Your task to perform on an android device: toggle improve location accuracy Image 0: 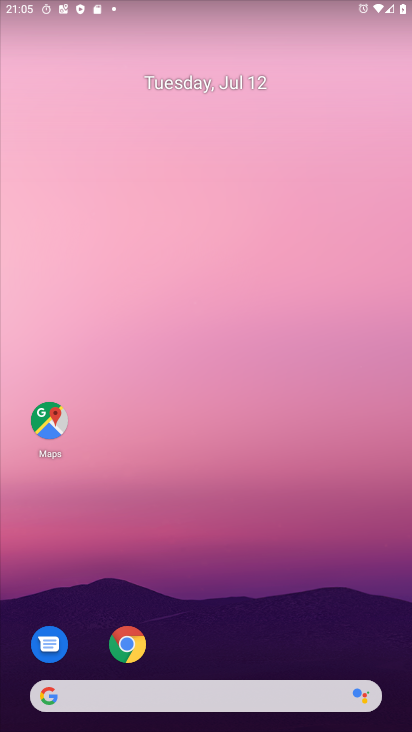
Step 0: drag from (167, 345) to (241, 165)
Your task to perform on an android device: toggle improve location accuracy Image 1: 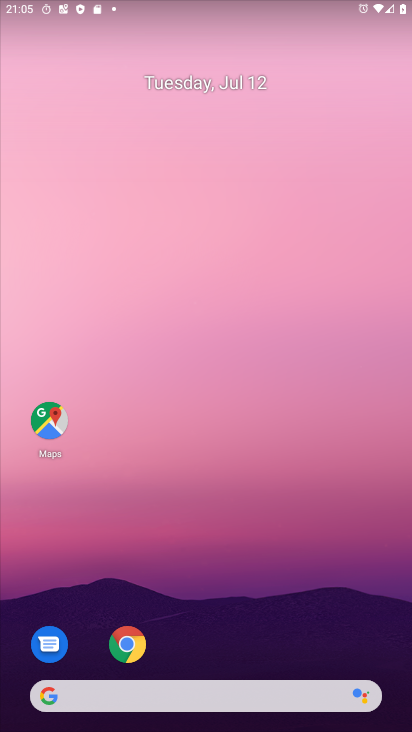
Step 1: drag from (5, 701) to (248, 186)
Your task to perform on an android device: toggle improve location accuracy Image 2: 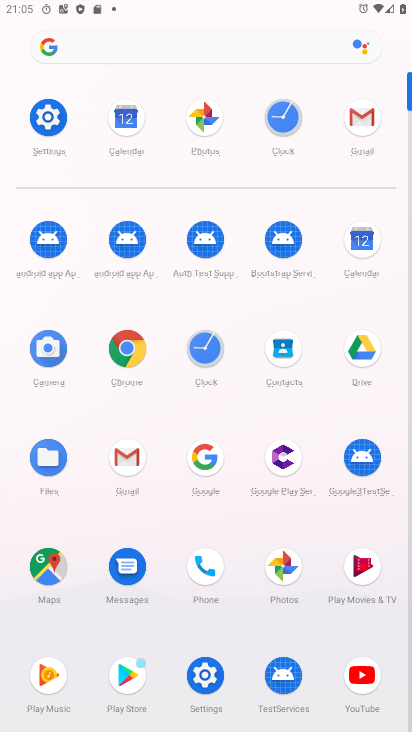
Step 2: click (212, 672)
Your task to perform on an android device: toggle improve location accuracy Image 3: 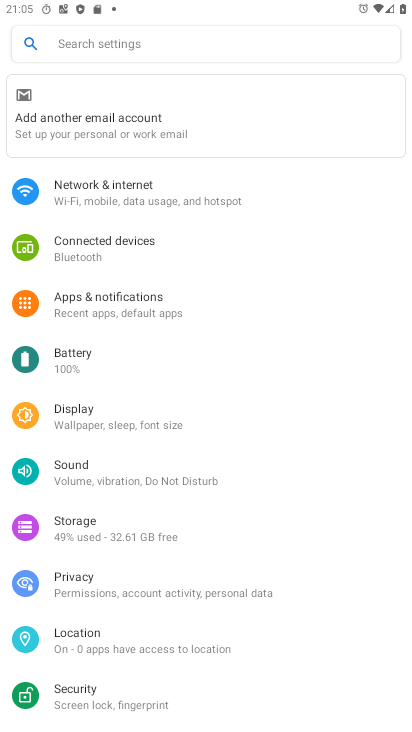
Step 3: click (77, 652)
Your task to perform on an android device: toggle improve location accuracy Image 4: 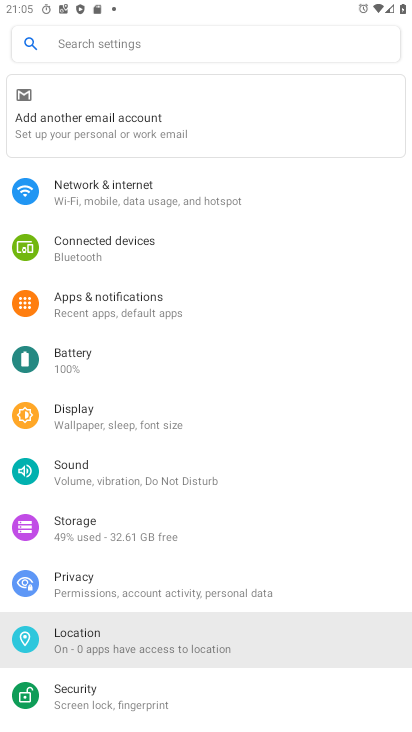
Step 4: click (83, 640)
Your task to perform on an android device: toggle improve location accuracy Image 5: 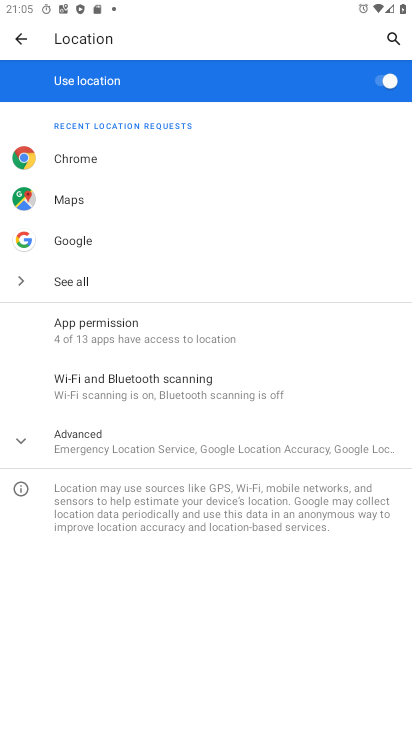
Step 5: click (76, 433)
Your task to perform on an android device: toggle improve location accuracy Image 6: 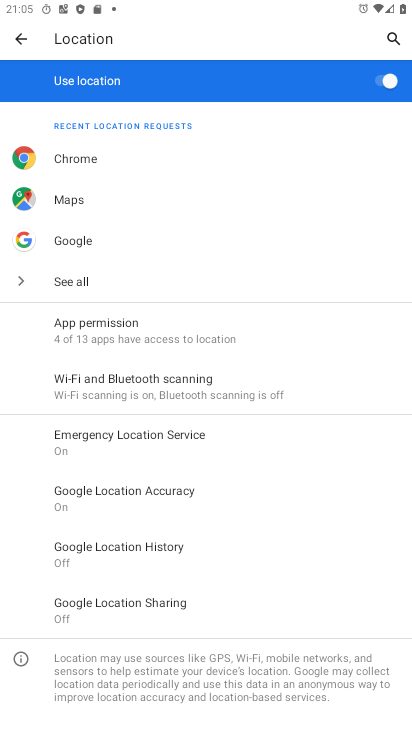
Step 6: click (121, 494)
Your task to perform on an android device: toggle improve location accuracy Image 7: 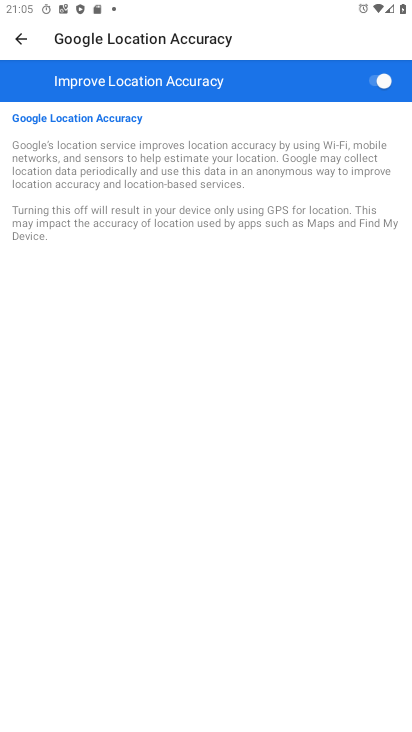
Step 7: task complete